Your task to perform on an android device: allow notifications from all sites in the chrome app Image 0: 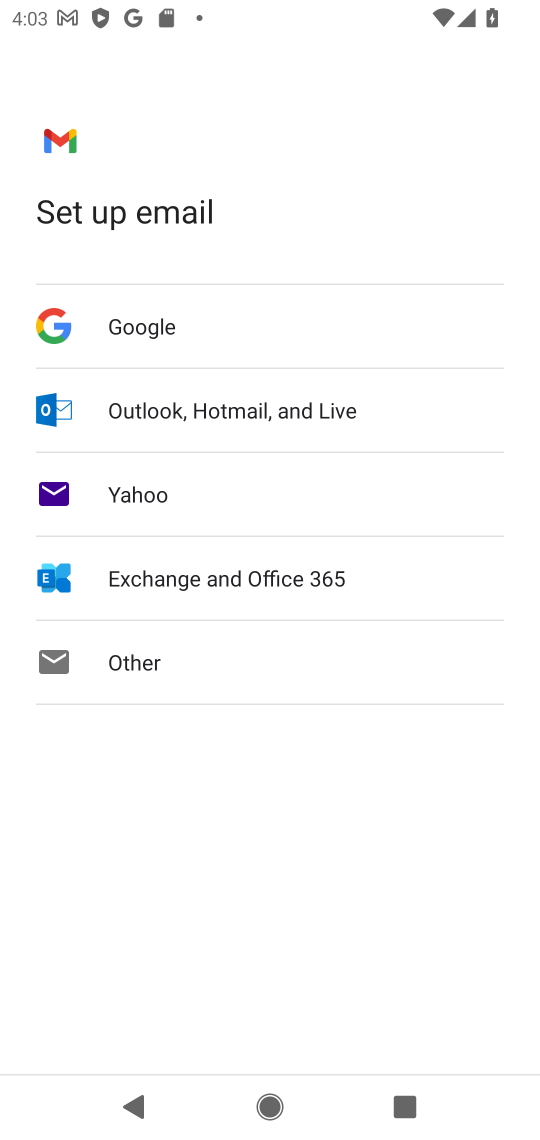
Step 0: press home button
Your task to perform on an android device: allow notifications from all sites in the chrome app Image 1: 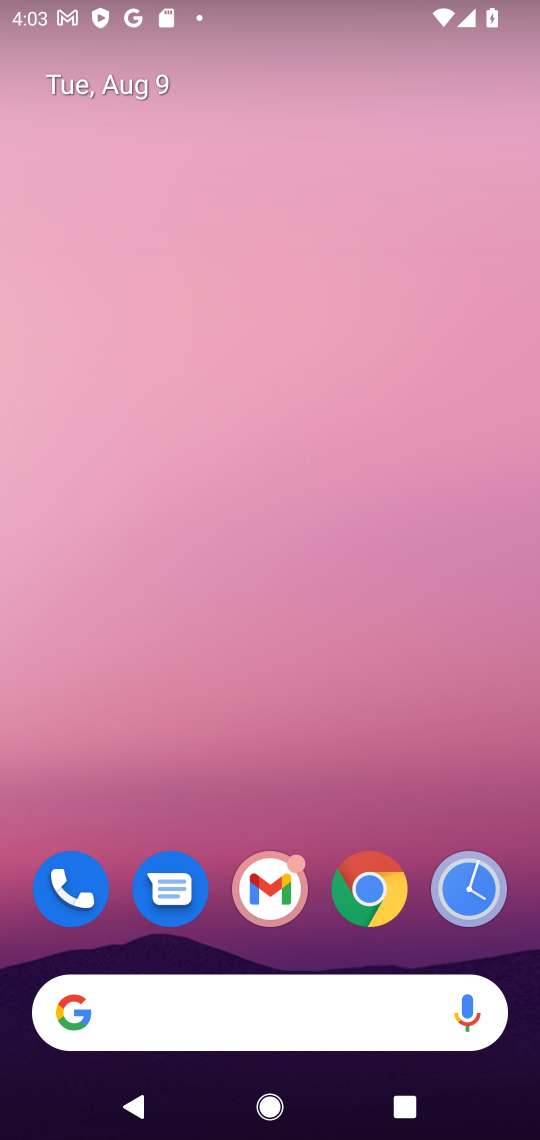
Step 1: click (382, 884)
Your task to perform on an android device: allow notifications from all sites in the chrome app Image 2: 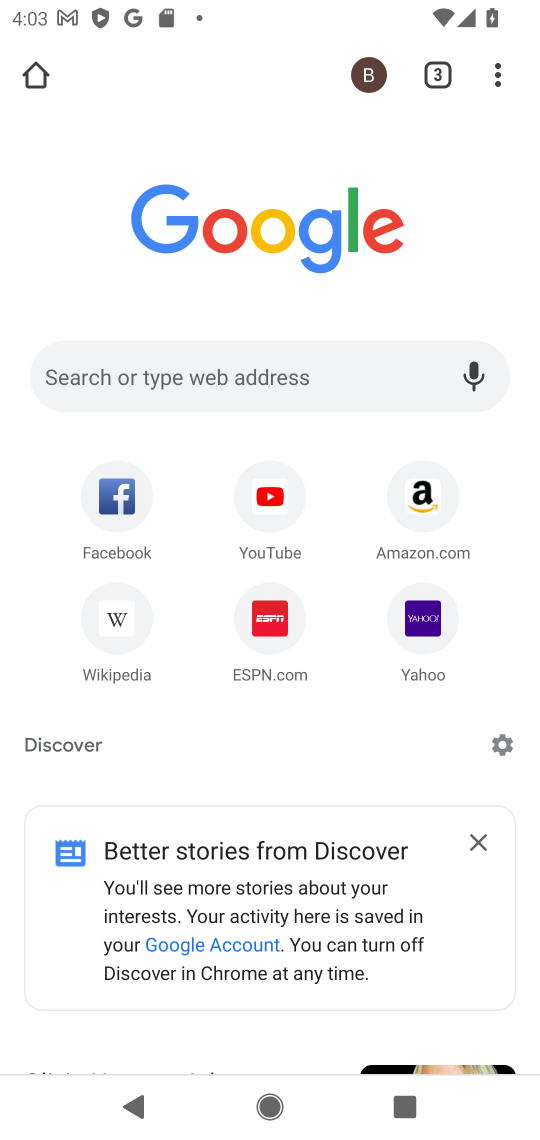
Step 2: click (499, 79)
Your task to perform on an android device: allow notifications from all sites in the chrome app Image 3: 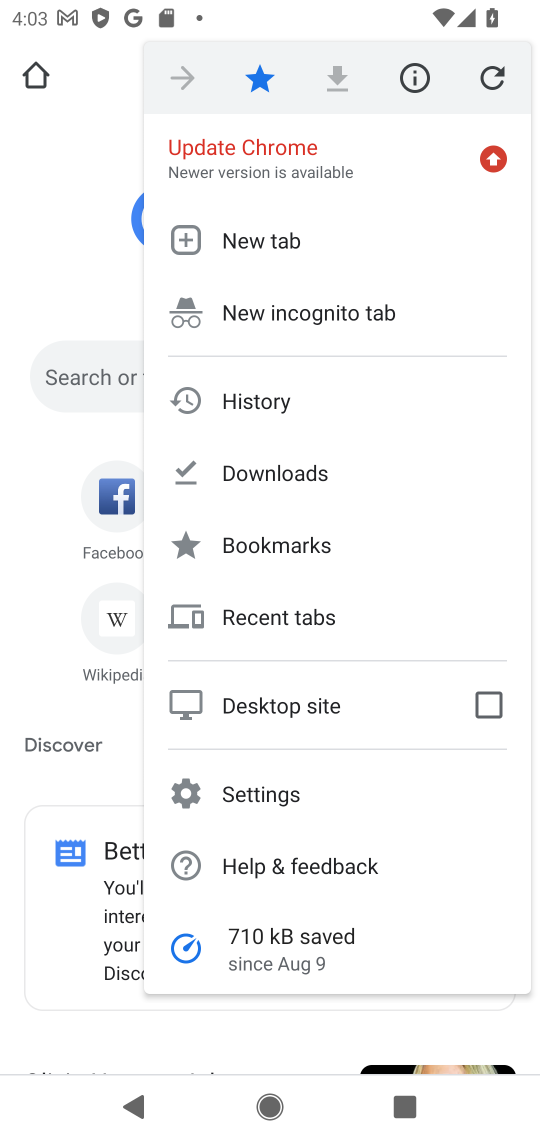
Step 3: click (266, 785)
Your task to perform on an android device: allow notifications from all sites in the chrome app Image 4: 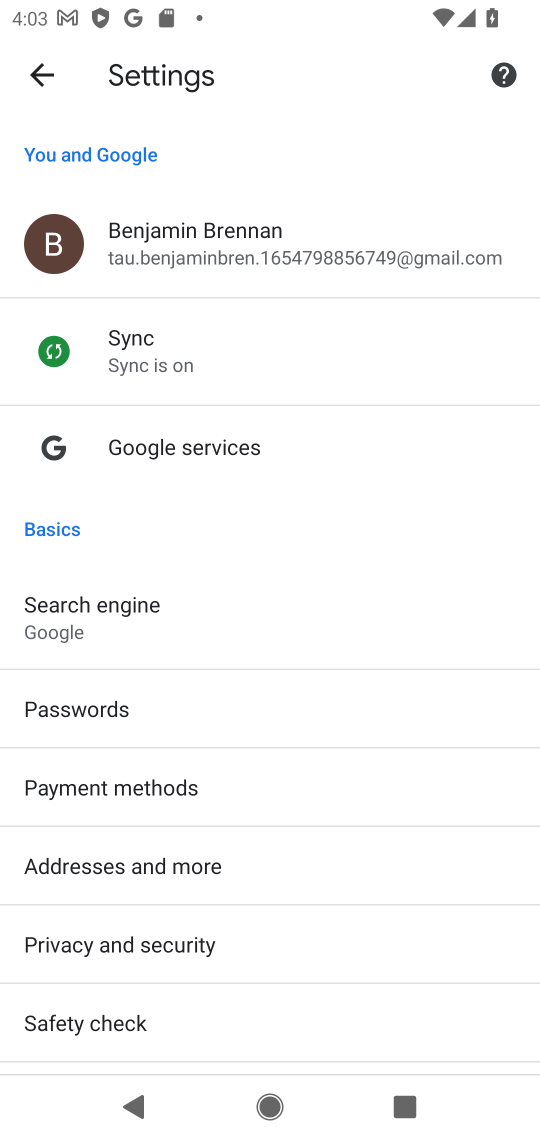
Step 4: drag from (291, 931) to (387, 116)
Your task to perform on an android device: allow notifications from all sites in the chrome app Image 5: 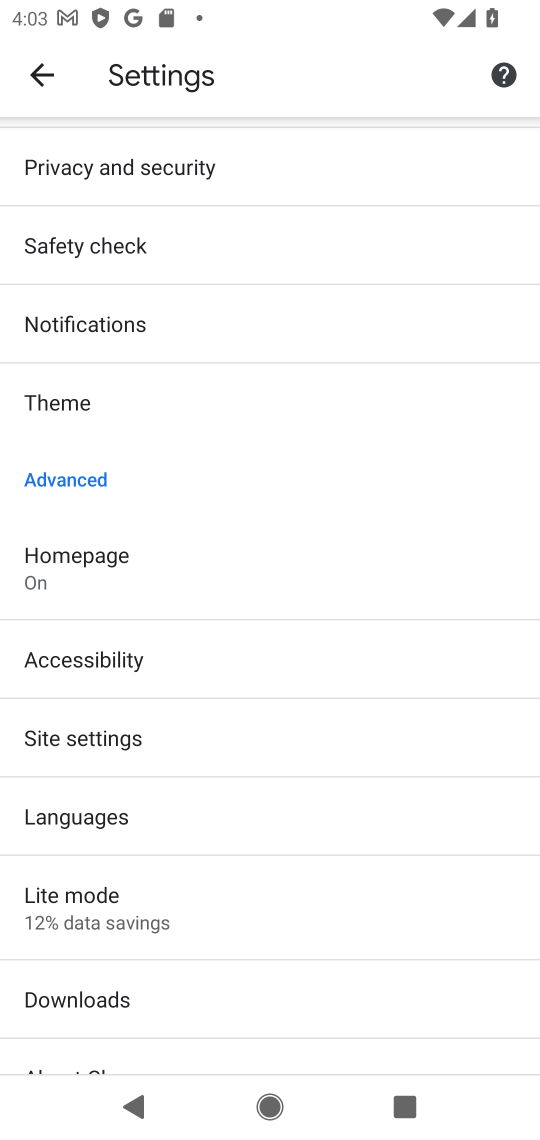
Step 5: click (275, 333)
Your task to perform on an android device: allow notifications from all sites in the chrome app Image 6: 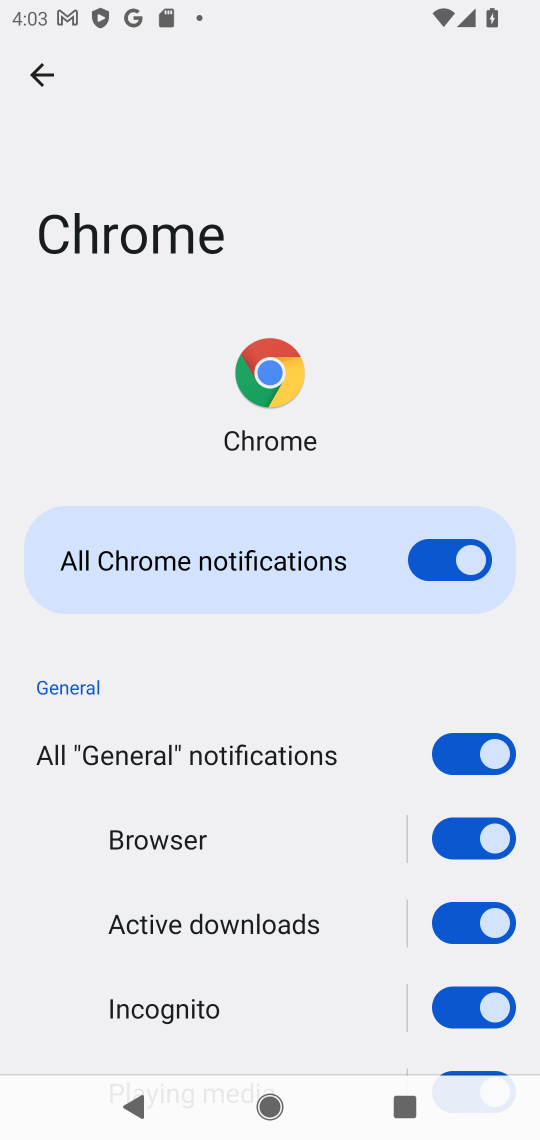
Step 6: task complete